Your task to perform on an android device: allow notifications from all sites in the chrome app Image 0: 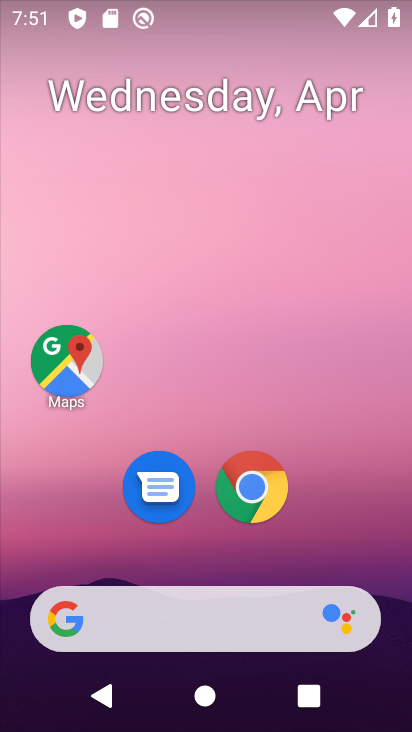
Step 0: click (253, 500)
Your task to perform on an android device: allow notifications from all sites in the chrome app Image 1: 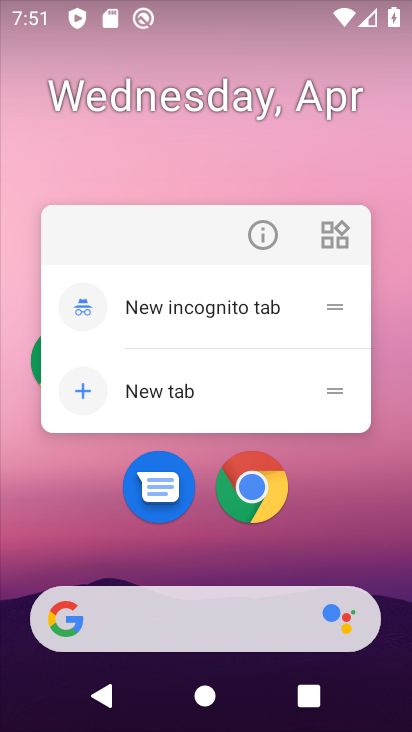
Step 1: click (254, 490)
Your task to perform on an android device: allow notifications from all sites in the chrome app Image 2: 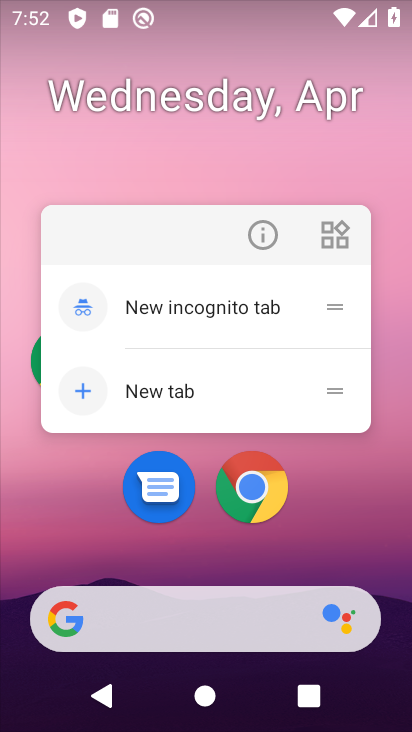
Step 2: drag from (343, 528) to (374, 108)
Your task to perform on an android device: allow notifications from all sites in the chrome app Image 3: 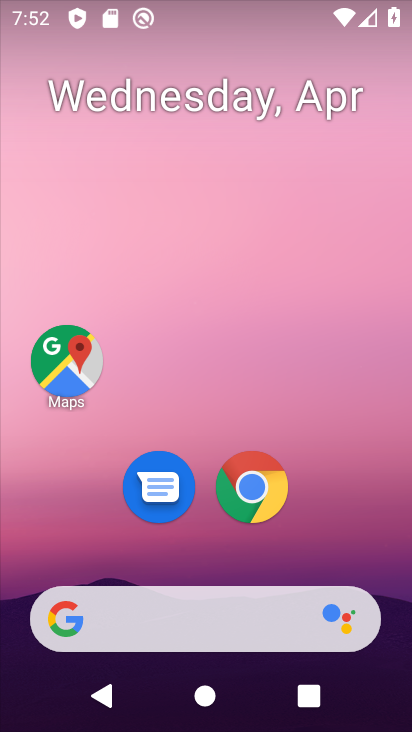
Step 3: drag from (376, 370) to (360, 127)
Your task to perform on an android device: allow notifications from all sites in the chrome app Image 4: 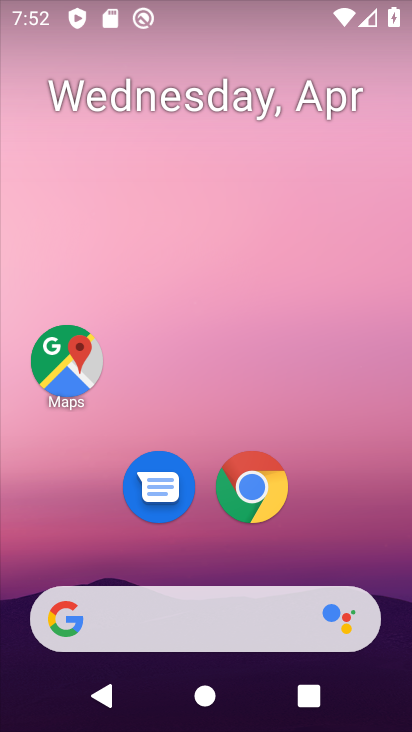
Step 4: drag from (381, 492) to (398, 379)
Your task to perform on an android device: allow notifications from all sites in the chrome app Image 5: 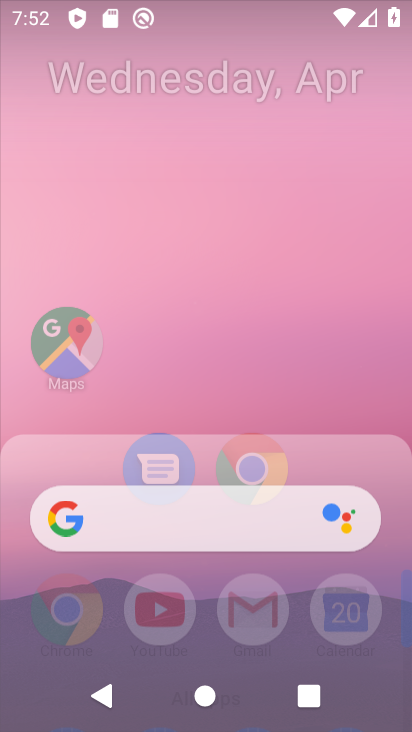
Step 5: click (255, 501)
Your task to perform on an android device: allow notifications from all sites in the chrome app Image 6: 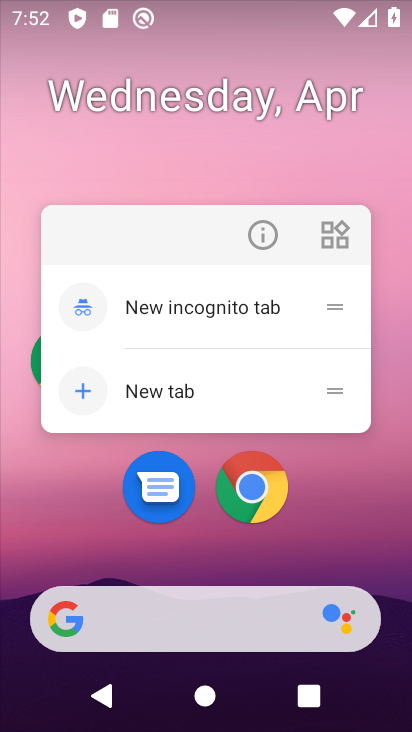
Step 6: drag from (342, 507) to (328, 2)
Your task to perform on an android device: allow notifications from all sites in the chrome app Image 7: 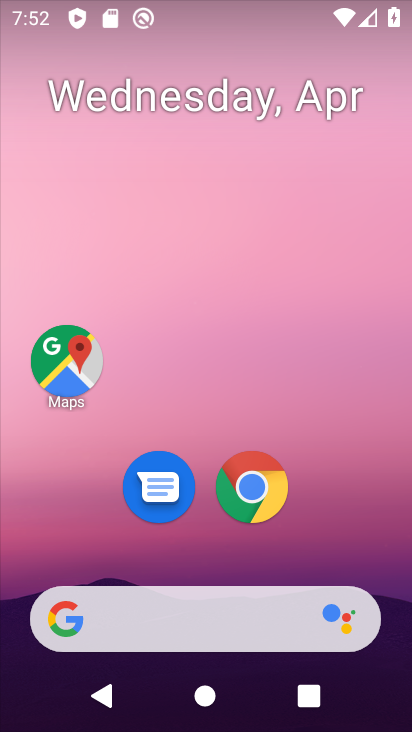
Step 7: drag from (362, 437) to (328, 86)
Your task to perform on an android device: allow notifications from all sites in the chrome app Image 8: 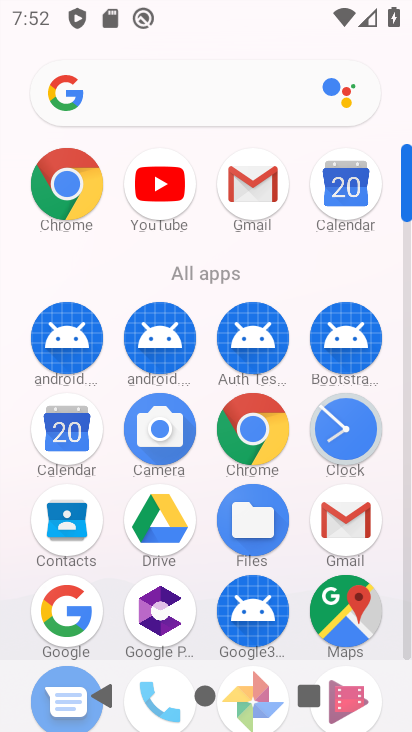
Step 8: click (249, 436)
Your task to perform on an android device: allow notifications from all sites in the chrome app Image 9: 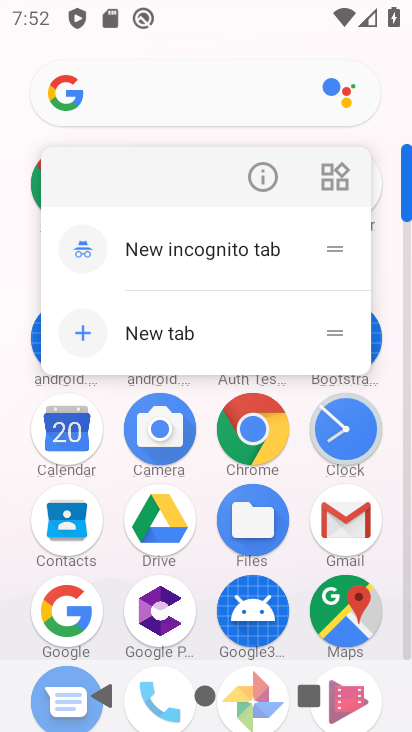
Step 9: click (250, 433)
Your task to perform on an android device: allow notifications from all sites in the chrome app Image 10: 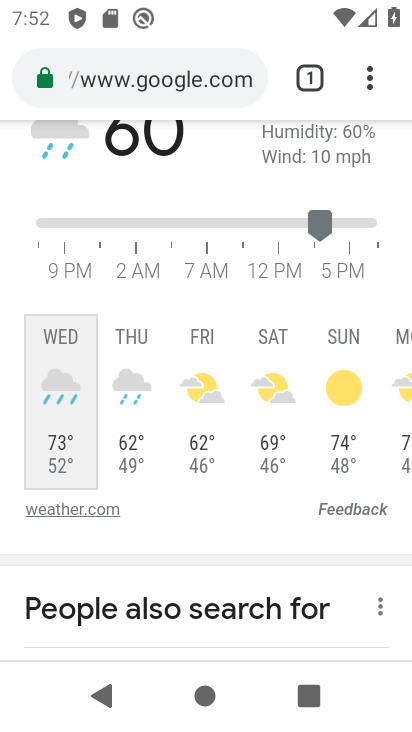
Step 10: click (369, 73)
Your task to perform on an android device: allow notifications from all sites in the chrome app Image 11: 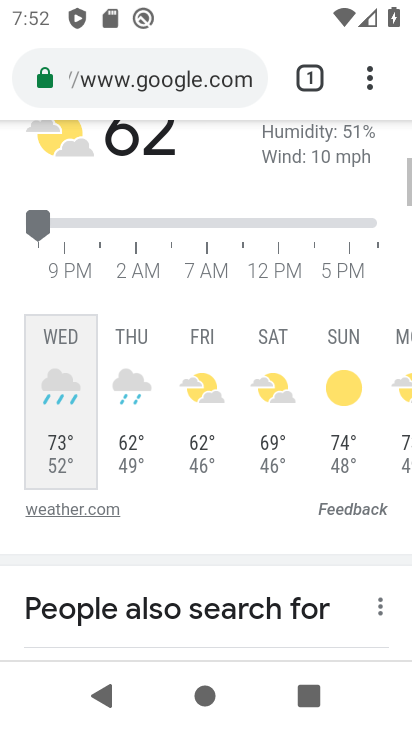
Step 11: drag from (372, 76) to (151, 545)
Your task to perform on an android device: allow notifications from all sites in the chrome app Image 12: 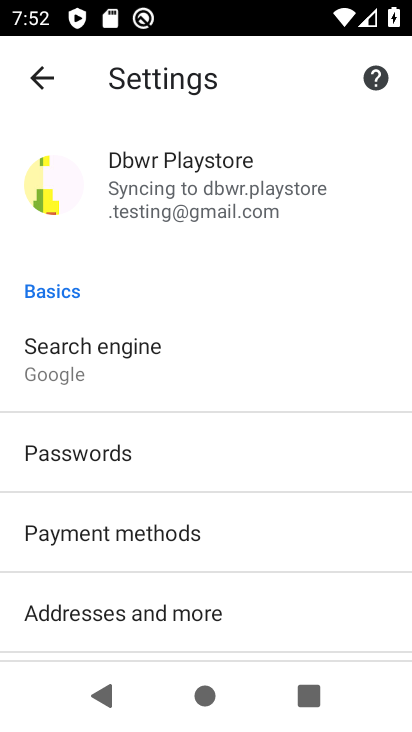
Step 12: drag from (250, 574) to (278, 188)
Your task to perform on an android device: allow notifications from all sites in the chrome app Image 13: 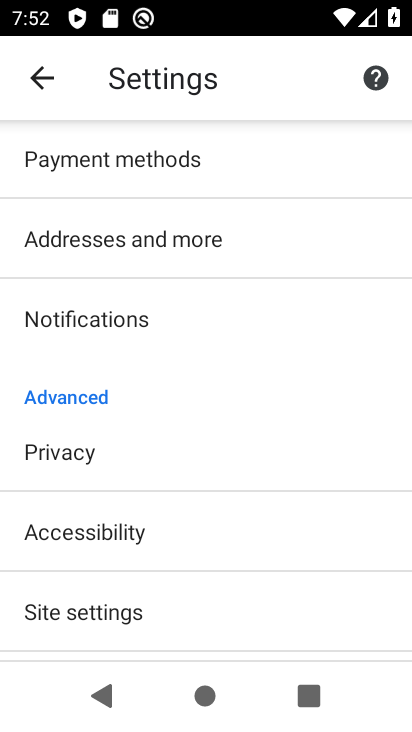
Step 13: click (108, 315)
Your task to perform on an android device: allow notifications from all sites in the chrome app Image 14: 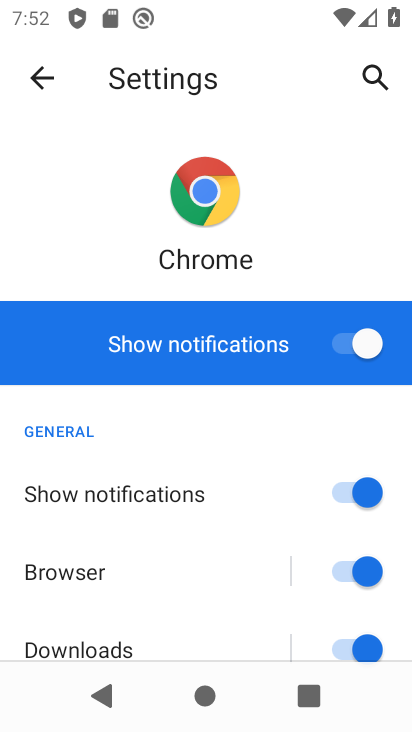
Step 14: task complete